Your task to perform on an android device: Search for Italian restaurants on Maps Image 0: 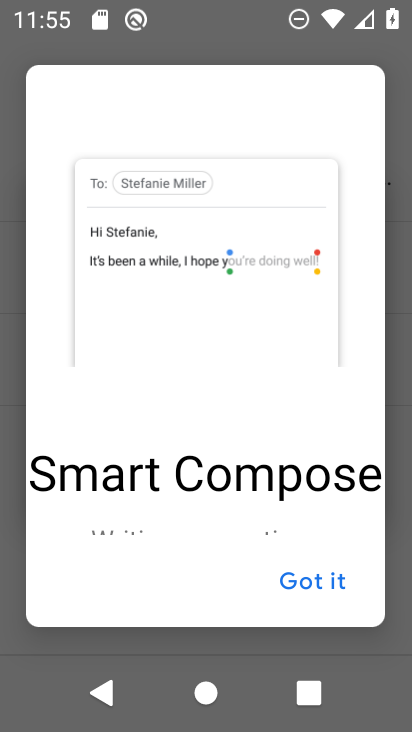
Step 0: press home button
Your task to perform on an android device: Search for Italian restaurants on Maps Image 1: 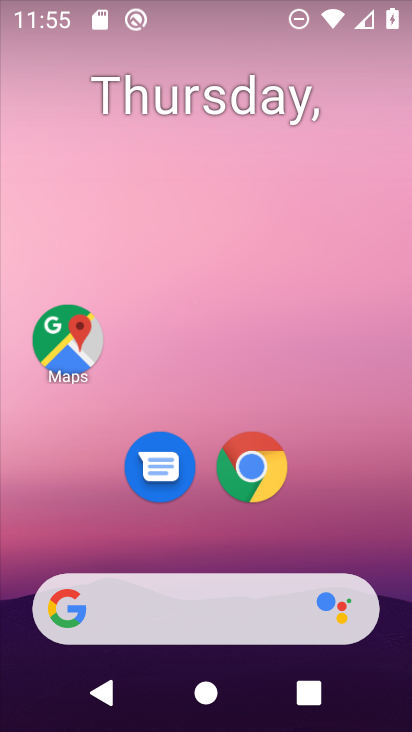
Step 1: click (66, 342)
Your task to perform on an android device: Search for Italian restaurants on Maps Image 2: 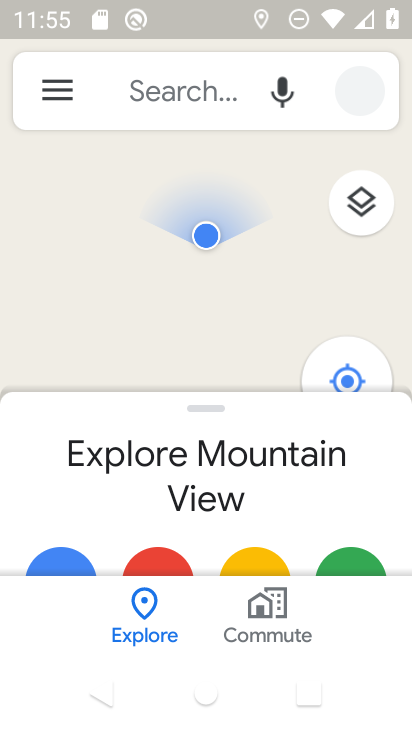
Step 2: click (131, 94)
Your task to perform on an android device: Search for Italian restaurants on Maps Image 3: 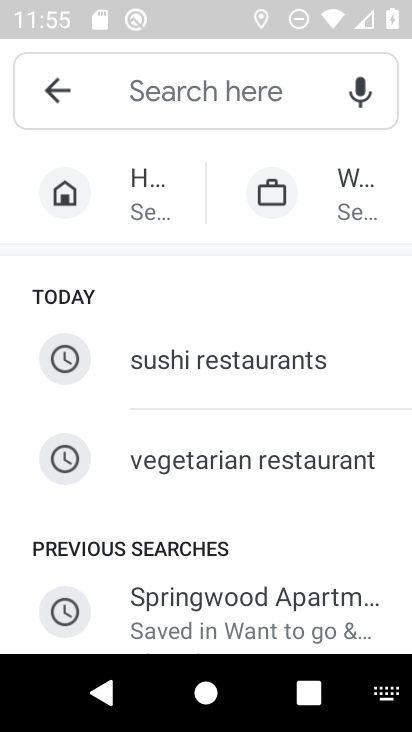
Step 3: type "italian restaurant "
Your task to perform on an android device: Search for Italian restaurants on Maps Image 4: 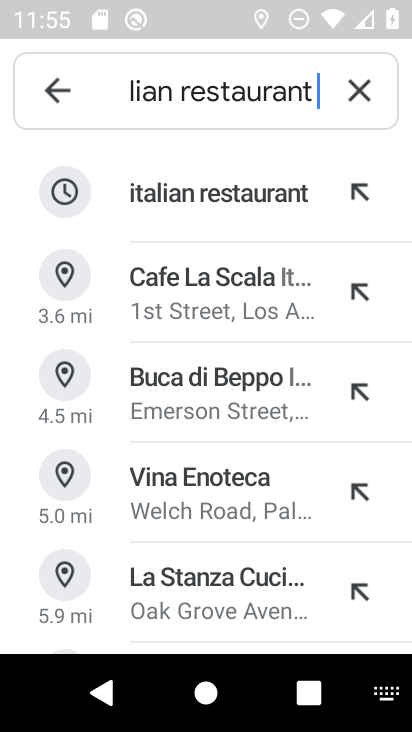
Step 4: click (188, 195)
Your task to perform on an android device: Search for Italian restaurants on Maps Image 5: 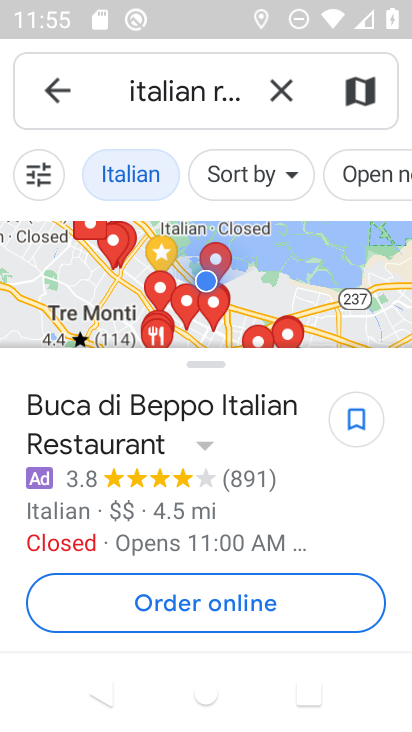
Step 5: task complete